Your task to perform on an android device: open chrome privacy settings Image 0: 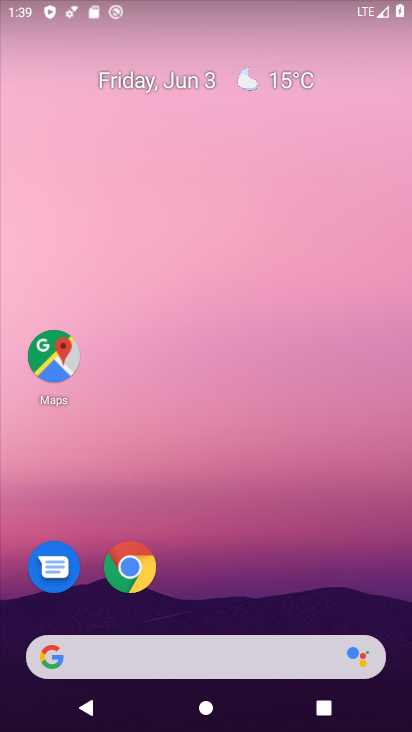
Step 0: drag from (172, 636) to (233, 217)
Your task to perform on an android device: open chrome privacy settings Image 1: 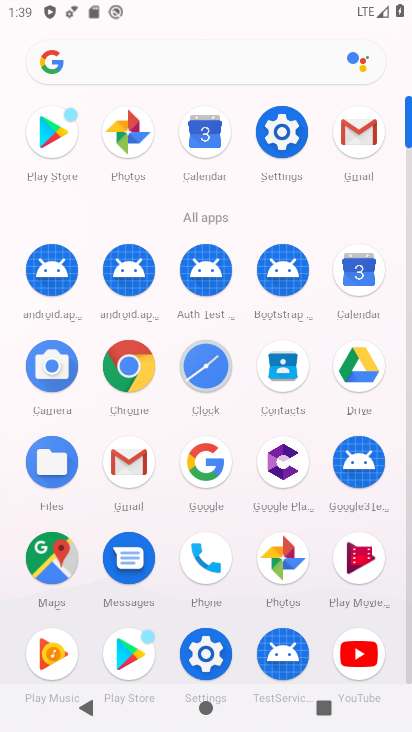
Step 1: click (136, 365)
Your task to perform on an android device: open chrome privacy settings Image 2: 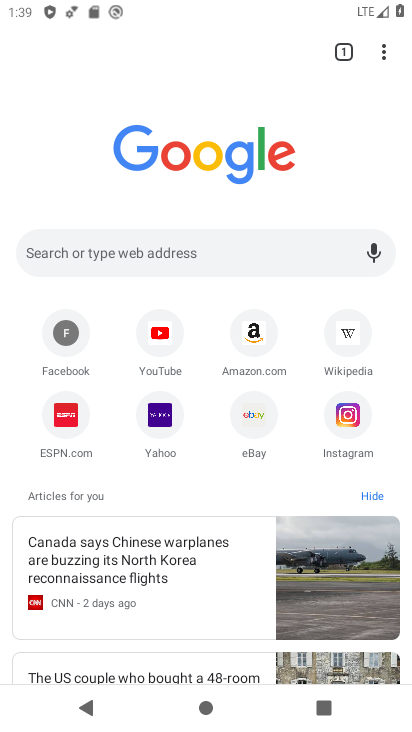
Step 2: click (382, 51)
Your task to perform on an android device: open chrome privacy settings Image 3: 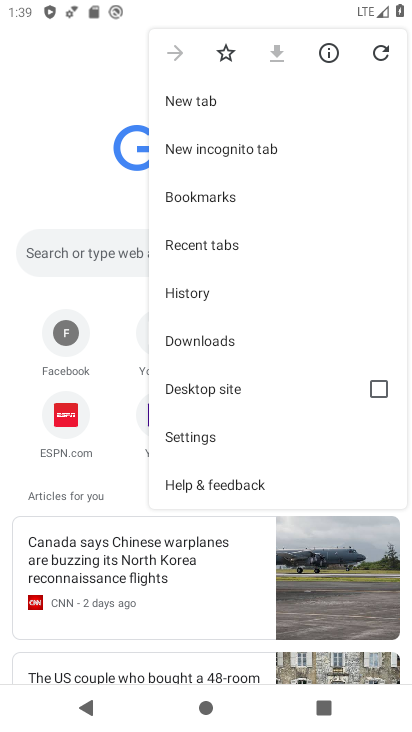
Step 3: click (202, 436)
Your task to perform on an android device: open chrome privacy settings Image 4: 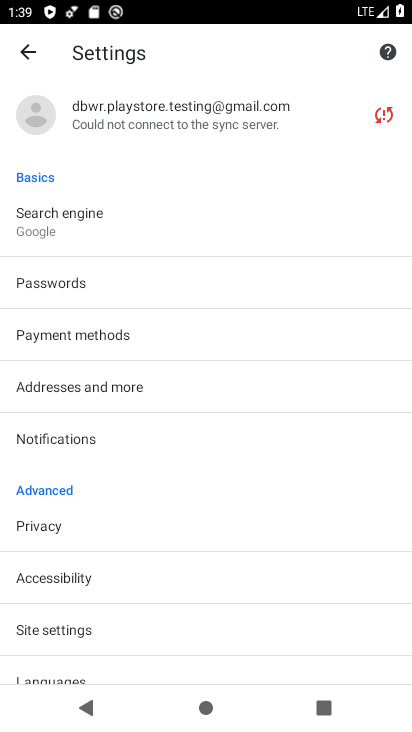
Step 4: click (56, 535)
Your task to perform on an android device: open chrome privacy settings Image 5: 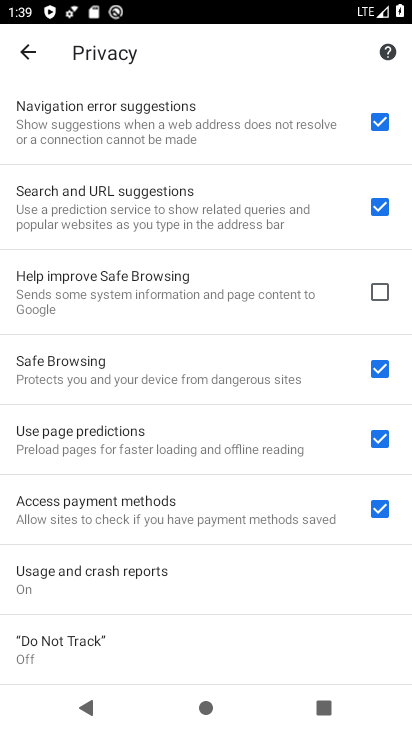
Step 5: task complete